Your task to perform on an android device: toggle notifications settings in the gmail app Image 0: 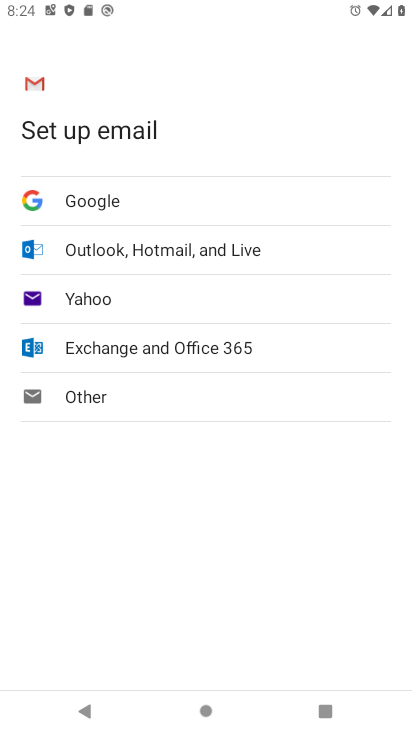
Step 0: press home button
Your task to perform on an android device: toggle notifications settings in the gmail app Image 1: 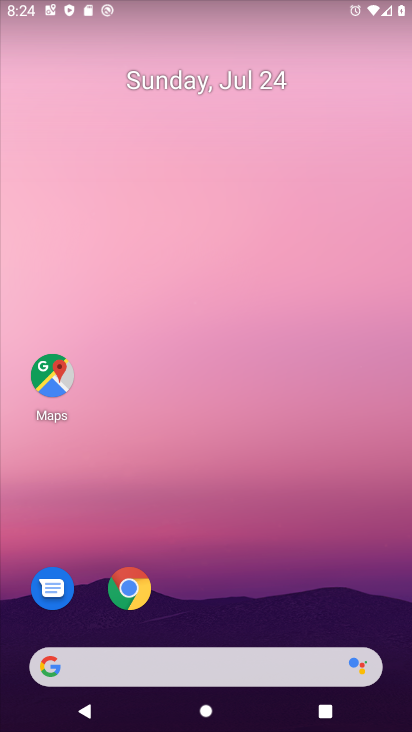
Step 1: drag from (135, 580) to (115, 302)
Your task to perform on an android device: toggle notifications settings in the gmail app Image 2: 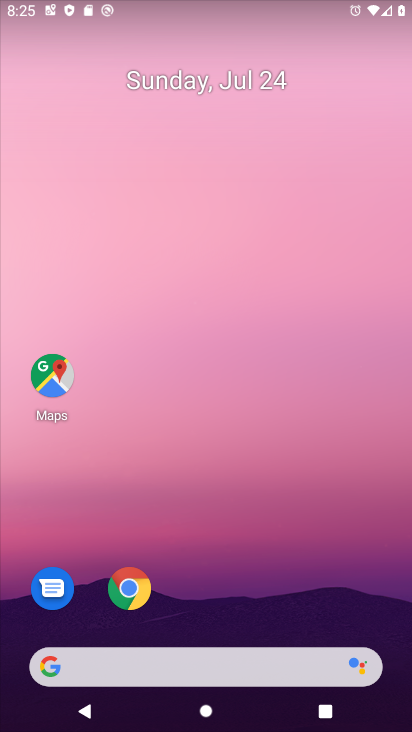
Step 2: drag from (294, 613) to (357, 154)
Your task to perform on an android device: toggle notifications settings in the gmail app Image 3: 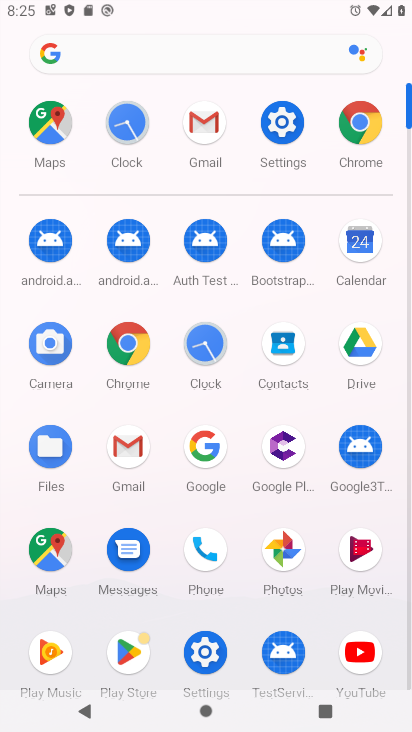
Step 3: click (223, 126)
Your task to perform on an android device: toggle notifications settings in the gmail app Image 4: 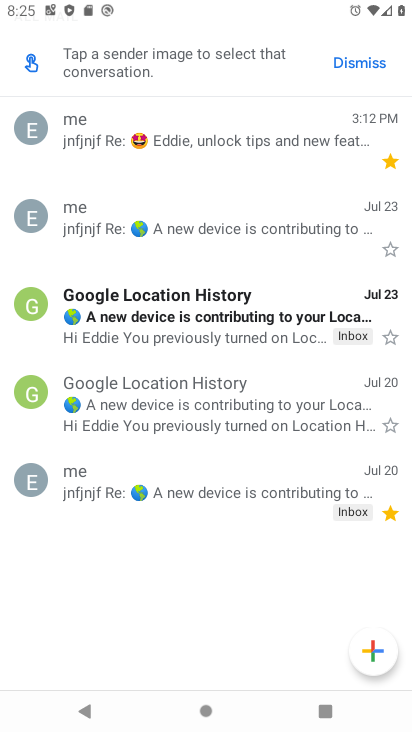
Step 4: drag from (169, 249) to (225, 561)
Your task to perform on an android device: toggle notifications settings in the gmail app Image 5: 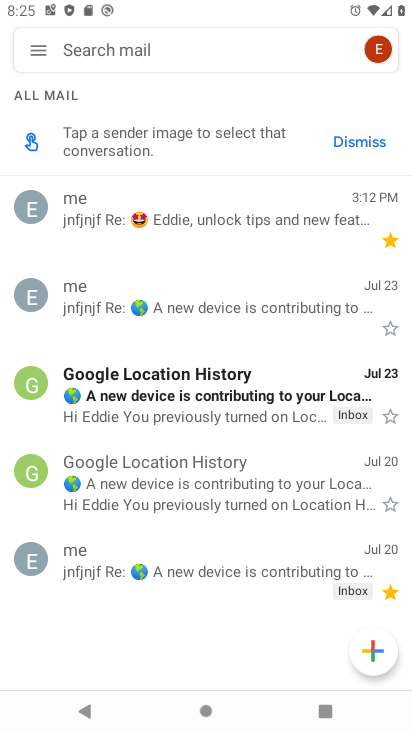
Step 5: click (36, 50)
Your task to perform on an android device: toggle notifications settings in the gmail app Image 6: 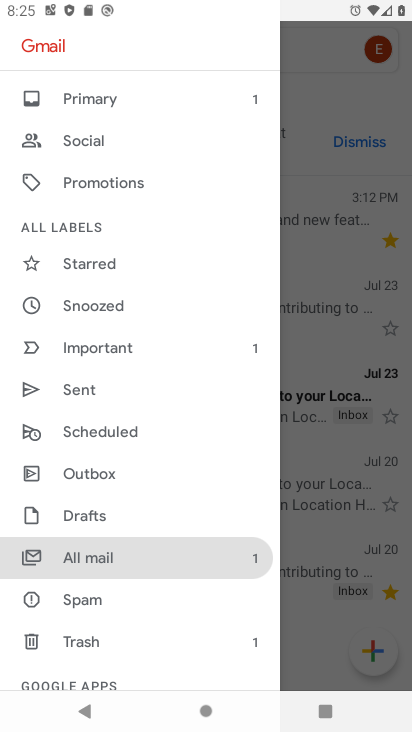
Step 6: drag from (151, 594) to (168, 154)
Your task to perform on an android device: toggle notifications settings in the gmail app Image 7: 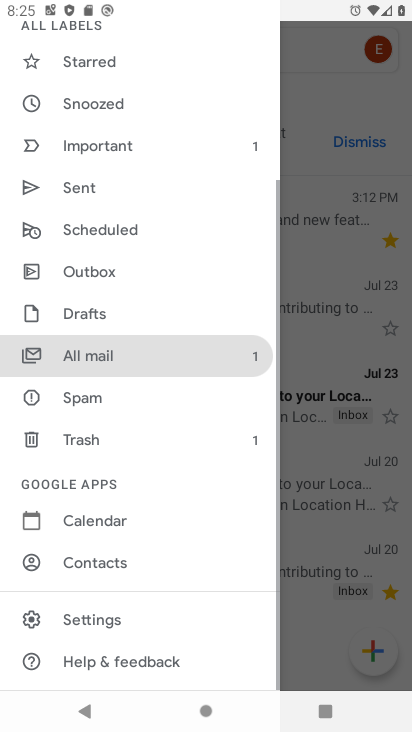
Step 7: click (71, 618)
Your task to perform on an android device: toggle notifications settings in the gmail app Image 8: 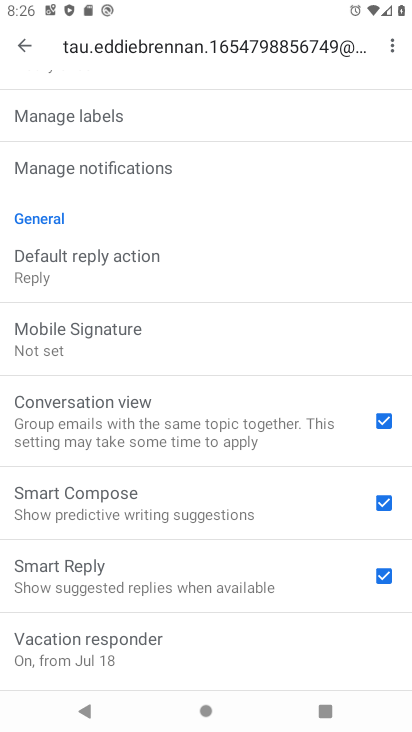
Step 8: click (135, 177)
Your task to perform on an android device: toggle notifications settings in the gmail app Image 9: 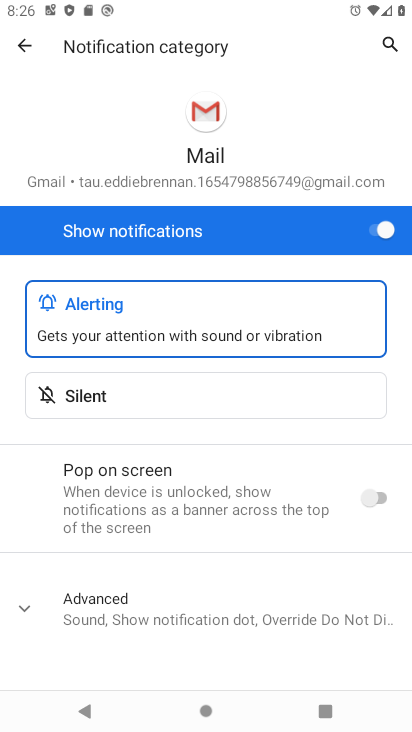
Step 9: click (24, 51)
Your task to perform on an android device: toggle notifications settings in the gmail app Image 10: 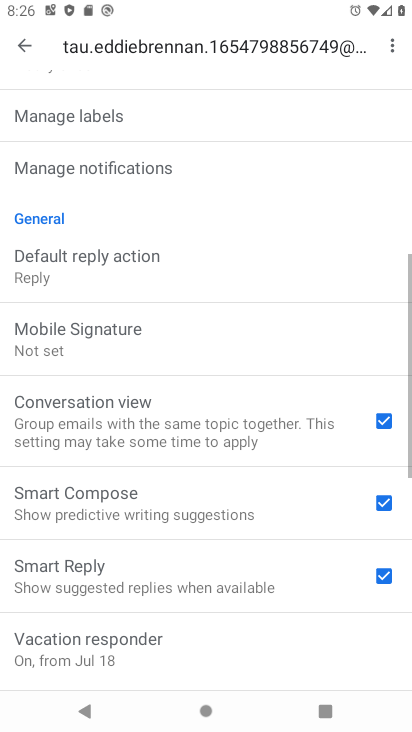
Step 10: drag from (205, 524) to (241, 728)
Your task to perform on an android device: toggle notifications settings in the gmail app Image 11: 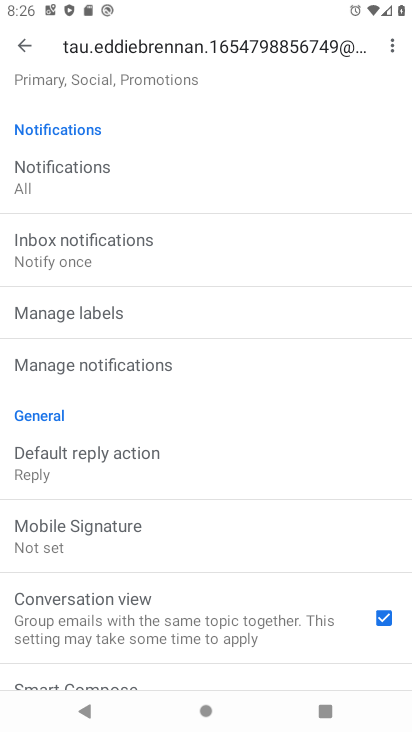
Step 11: click (72, 176)
Your task to perform on an android device: toggle notifications settings in the gmail app Image 12: 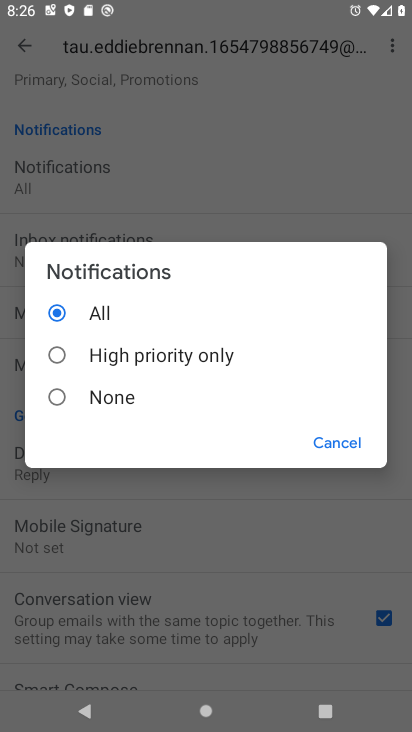
Step 12: click (85, 365)
Your task to perform on an android device: toggle notifications settings in the gmail app Image 13: 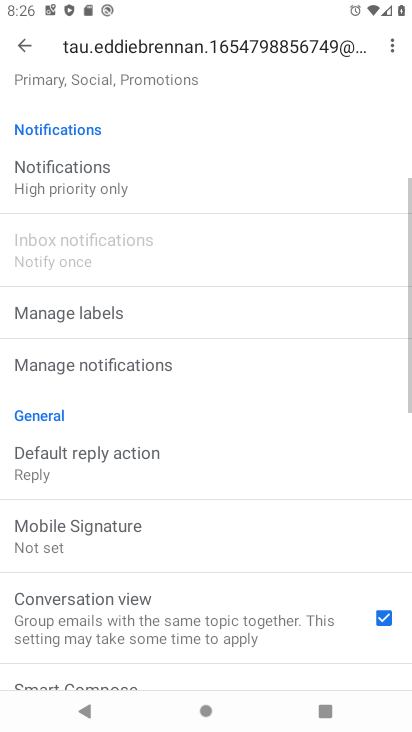
Step 13: task complete